Your task to perform on an android device: open chrome and create a bookmark for the current page Image 0: 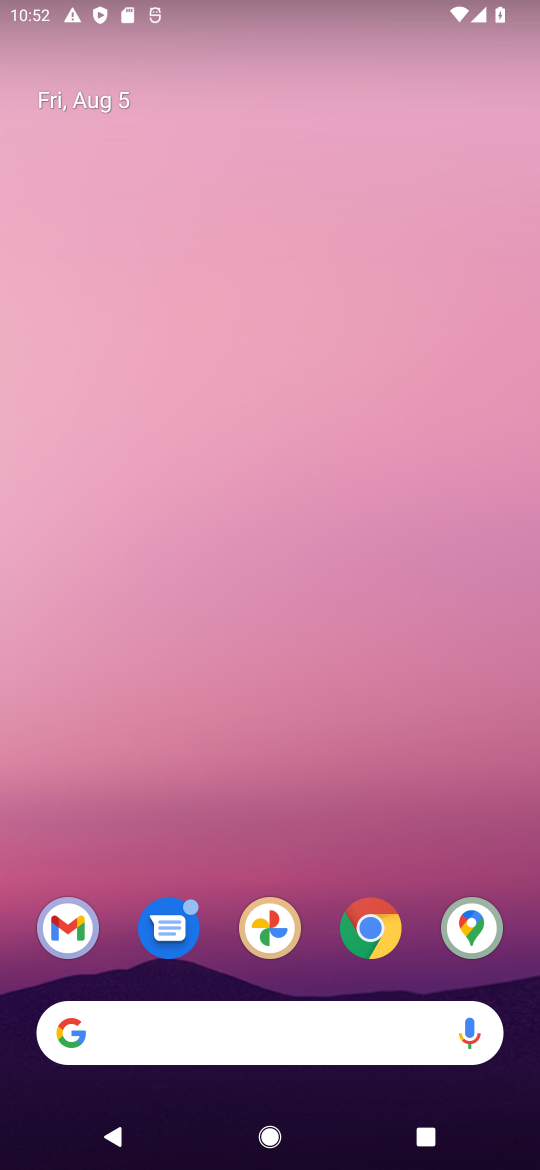
Step 0: click (356, 946)
Your task to perform on an android device: open chrome and create a bookmark for the current page Image 1: 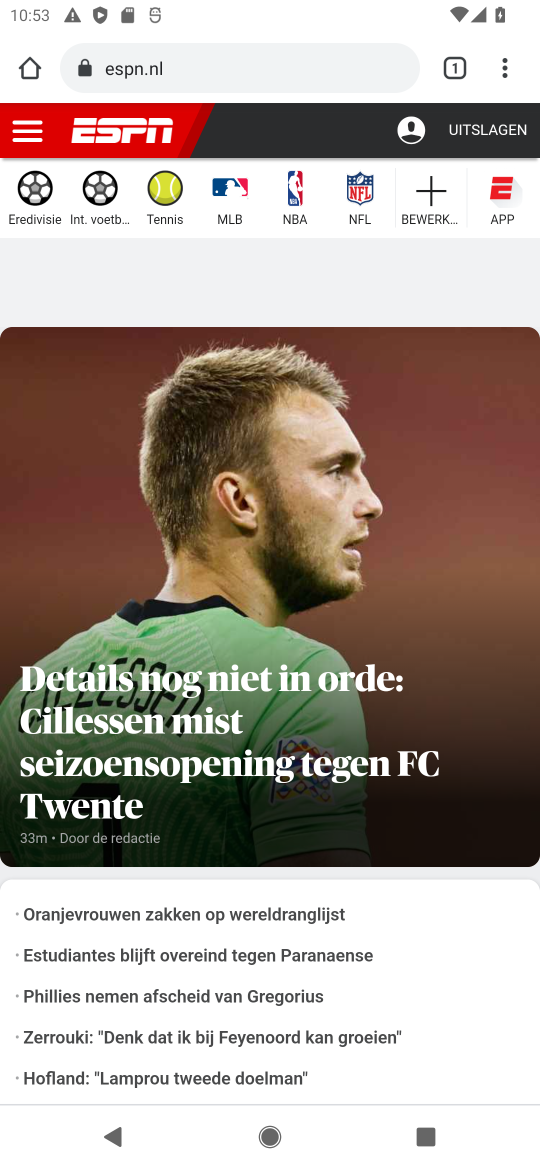
Step 1: click (514, 67)
Your task to perform on an android device: open chrome and create a bookmark for the current page Image 2: 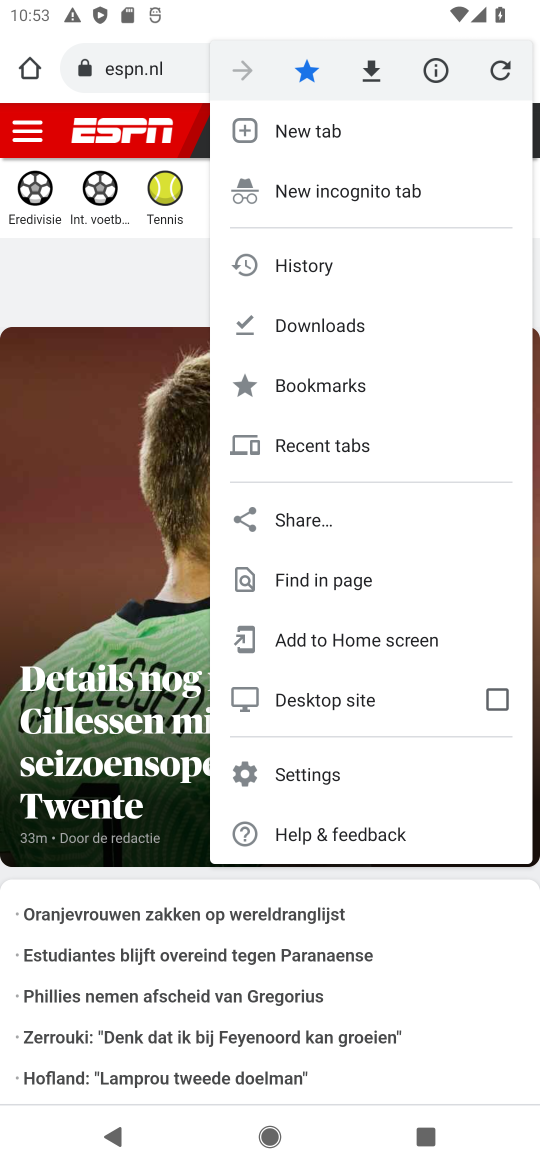
Step 2: click (295, 397)
Your task to perform on an android device: open chrome and create a bookmark for the current page Image 3: 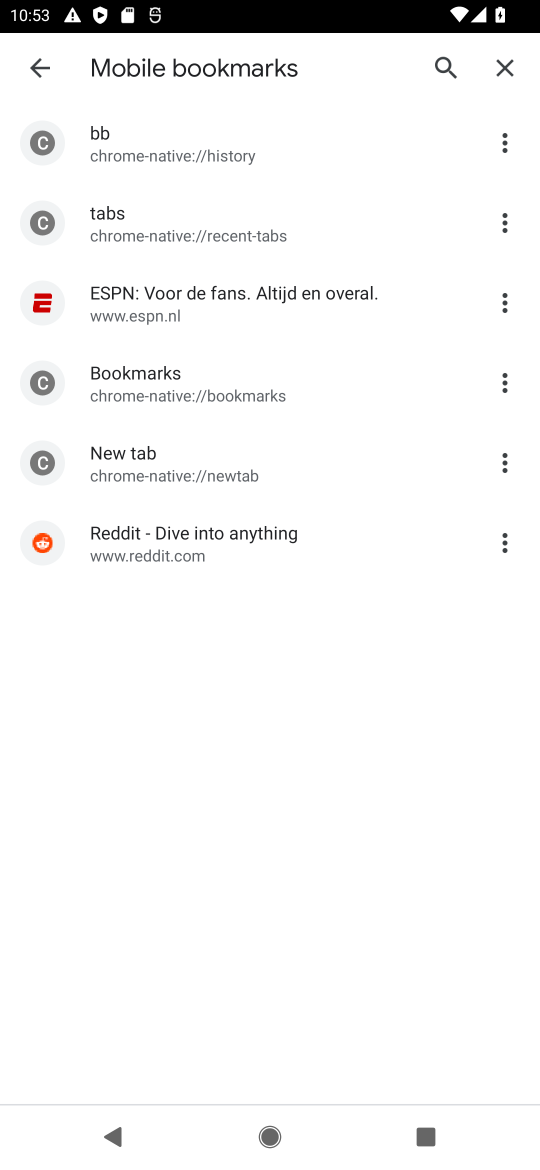
Step 3: task complete